Your task to perform on an android device: add a label to a message in the gmail app Image 0: 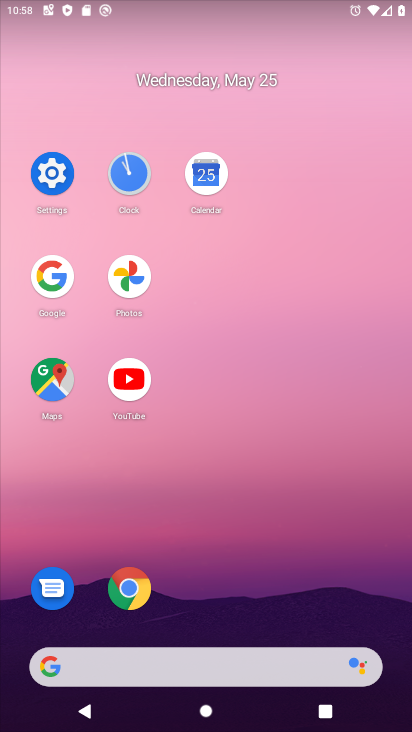
Step 0: drag from (275, 595) to (245, 202)
Your task to perform on an android device: add a label to a message in the gmail app Image 1: 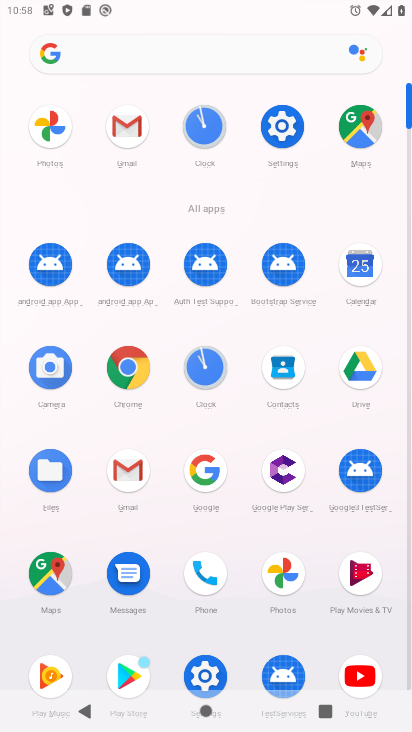
Step 1: drag from (130, 466) to (186, 292)
Your task to perform on an android device: add a label to a message in the gmail app Image 2: 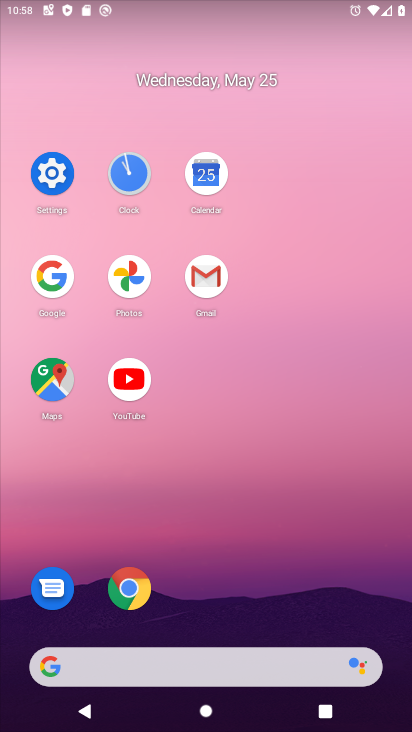
Step 2: click (219, 280)
Your task to perform on an android device: add a label to a message in the gmail app Image 3: 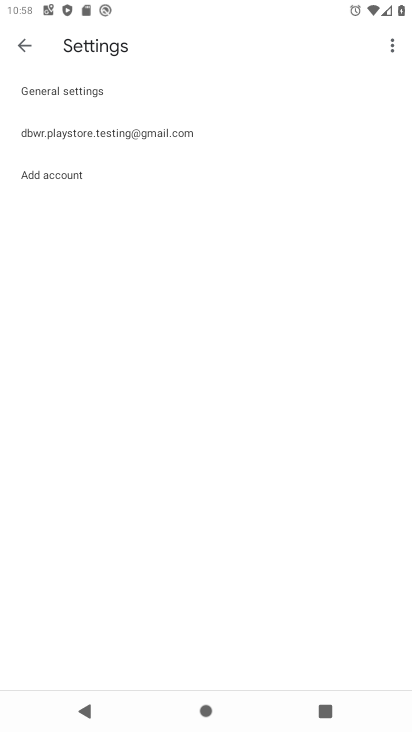
Step 3: click (27, 48)
Your task to perform on an android device: add a label to a message in the gmail app Image 4: 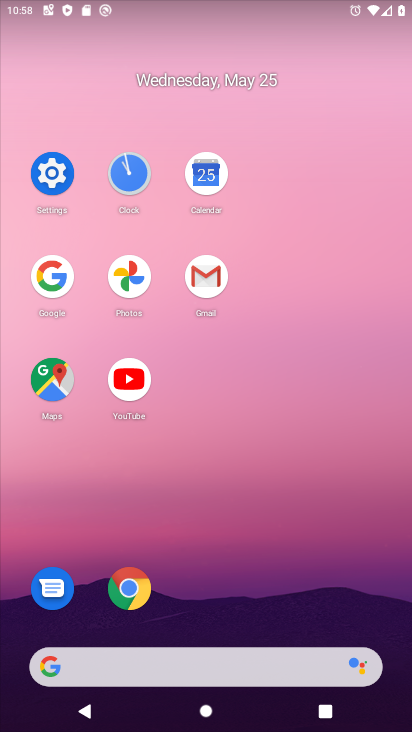
Step 4: click (197, 283)
Your task to perform on an android device: add a label to a message in the gmail app Image 5: 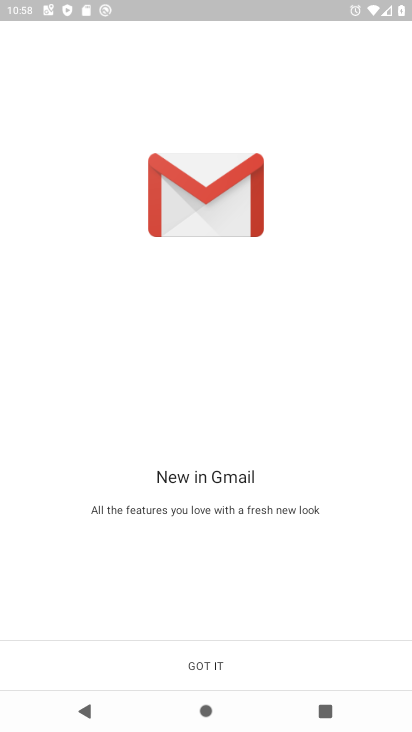
Step 5: click (274, 648)
Your task to perform on an android device: add a label to a message in the gmail app Image 6: 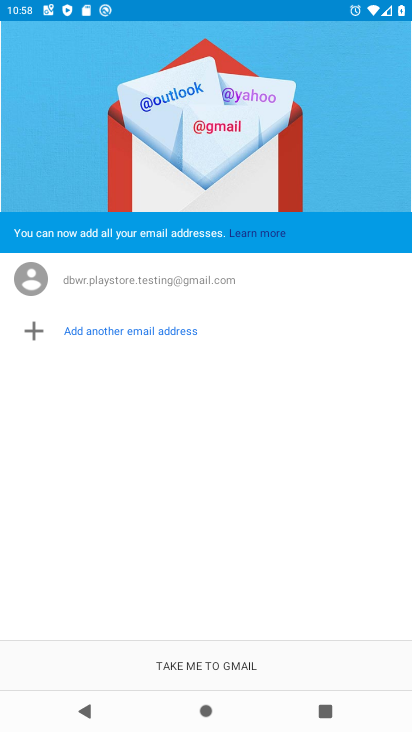
Step 6: click (247, 668)
Your task to perform on an android device: add a label to a message in the gmail app Image 7: 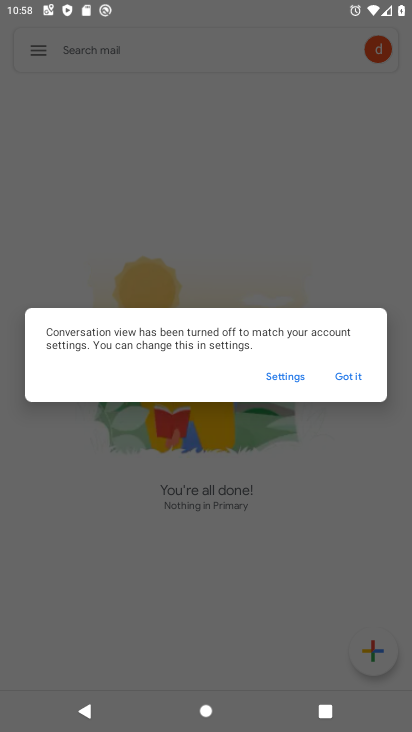
Step 7: click (340, 383)
Your task to perform on an android device: add a label to a message in the gmail app Image 8: 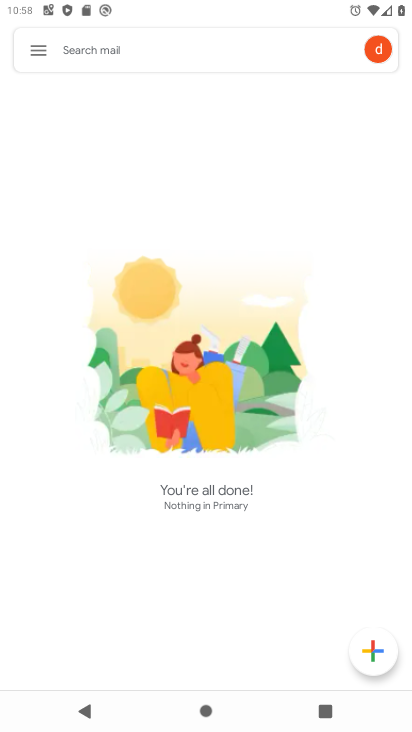
Step 8: click (27, 64)
Your task to perform on an android device: add a label to a message in the gmail app Image 9: 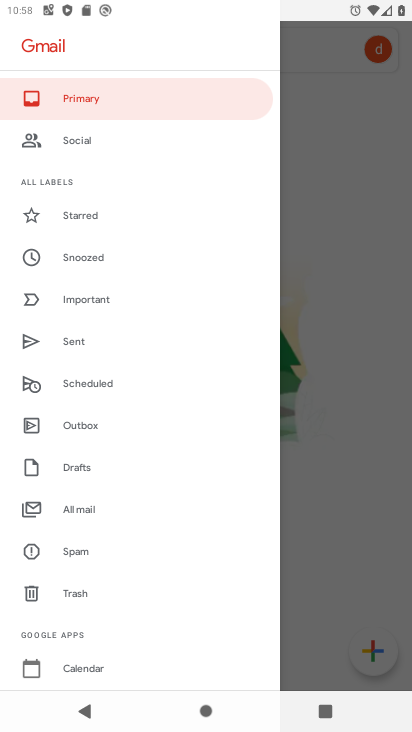
Step 9: click (91, 511)
Your task to perform on an android device: add a label to a message in the gmail app Image 10: 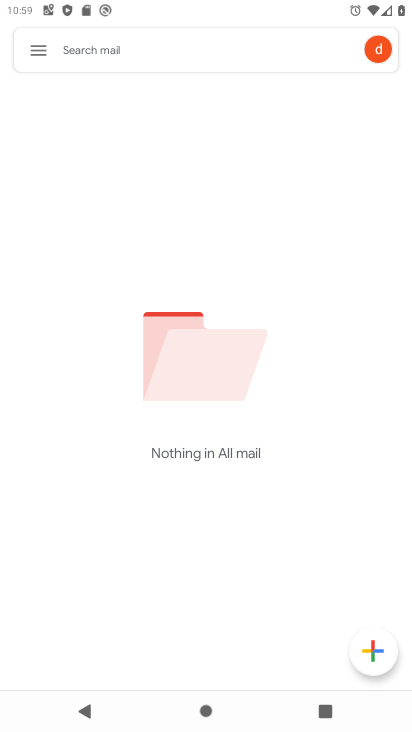
Step 10: task complete